Your task to perform on an android device: Open Reddit.com Image 0: 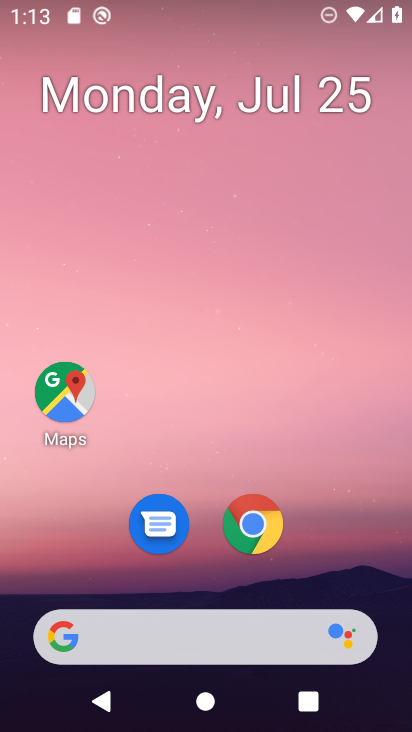
Step 0: press home button
Your task to perform on an android device: Open Reddit.com Image 1: 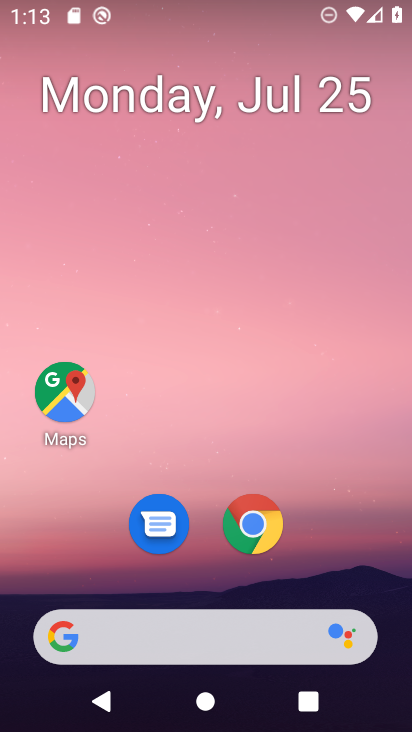
Step 1: click (253, 536)
Your task to perform on an android device: Open Reddit.com Image 2: 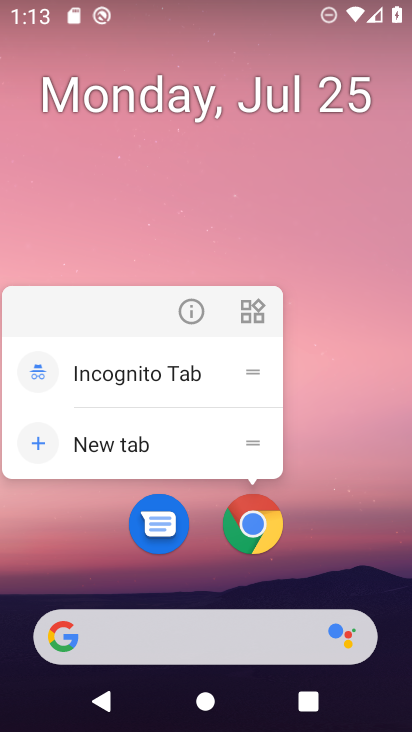
Step 2: click (257, 517)
Your task to perform on an android device: Open Reddit.com Image 3: 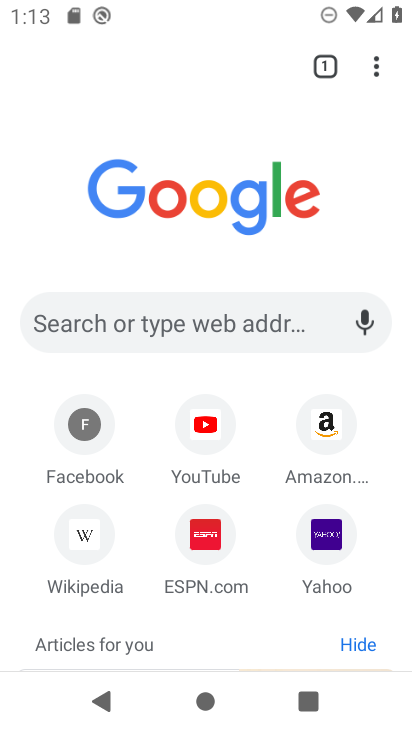
Step 3: click (96, 329)
Your task to perform on an android device: Open Reddit.com Image 4: 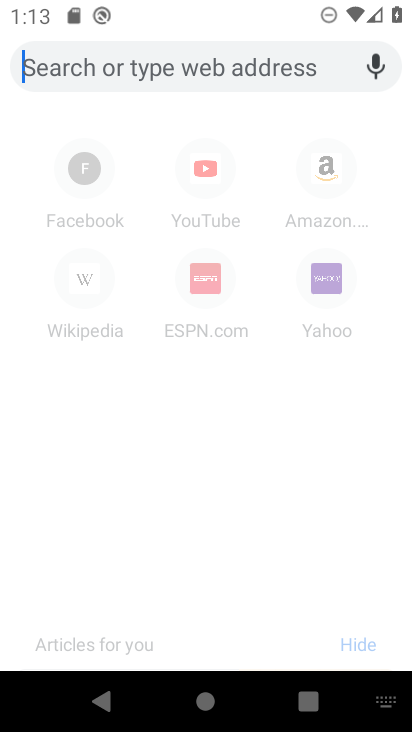
Step 4: type "reddit.com"
Your task to perform on an android device: Open Reddit.com Image 5: 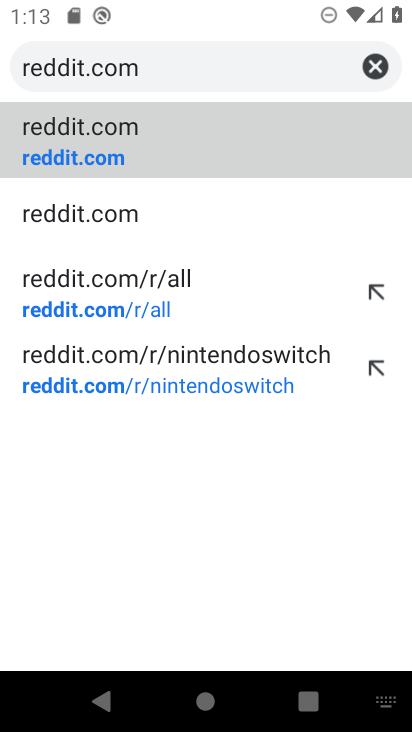
Step 5: click (160, 141)
Your task to perform on an android device: Open Reddit.com Image 6: 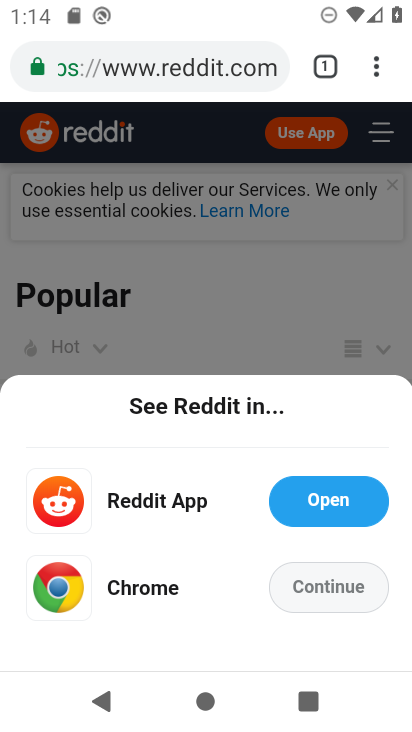
Step 6: task complete